Your task to perform on an android device: turn off location Image 0: 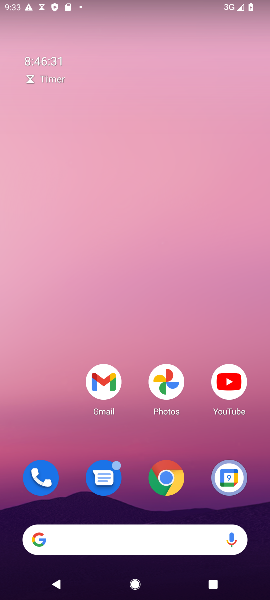
Step 0: drag from (193, 357) to (173, 14)
Your task to perform on an android device: turn off location Image 1: 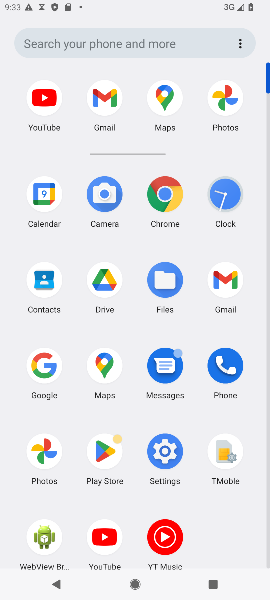
Step 1: click (164, 457)
Your task to perform on an android device: turn off location Image 2: 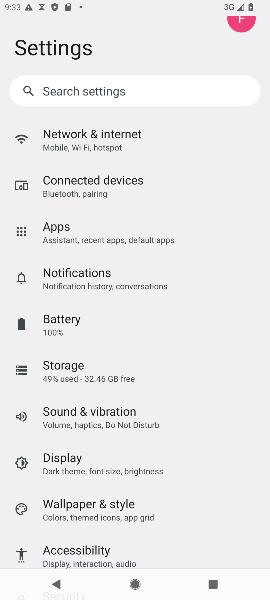
Step 2: drag from (159, 536) to (137, 240)
Your task to perform on an android device: turn off location Image 3: 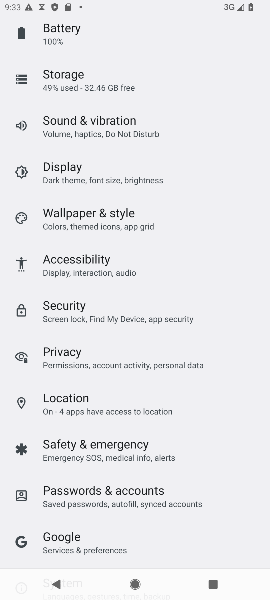
Step 3: click (157, 397)
Your task to perform on an android device: turn off location Image 4: 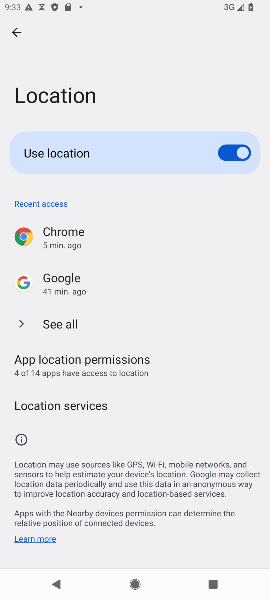
Step 4: click (226, 152)
Your task to perform on an android device: turn off location Image 5: 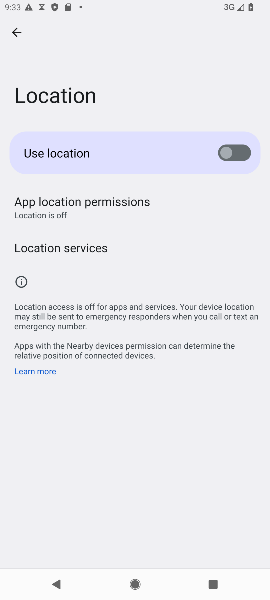
Step 5: task complete